Your task to perform on an android device: uninstall "Speedtest by Ookla" Image 0: 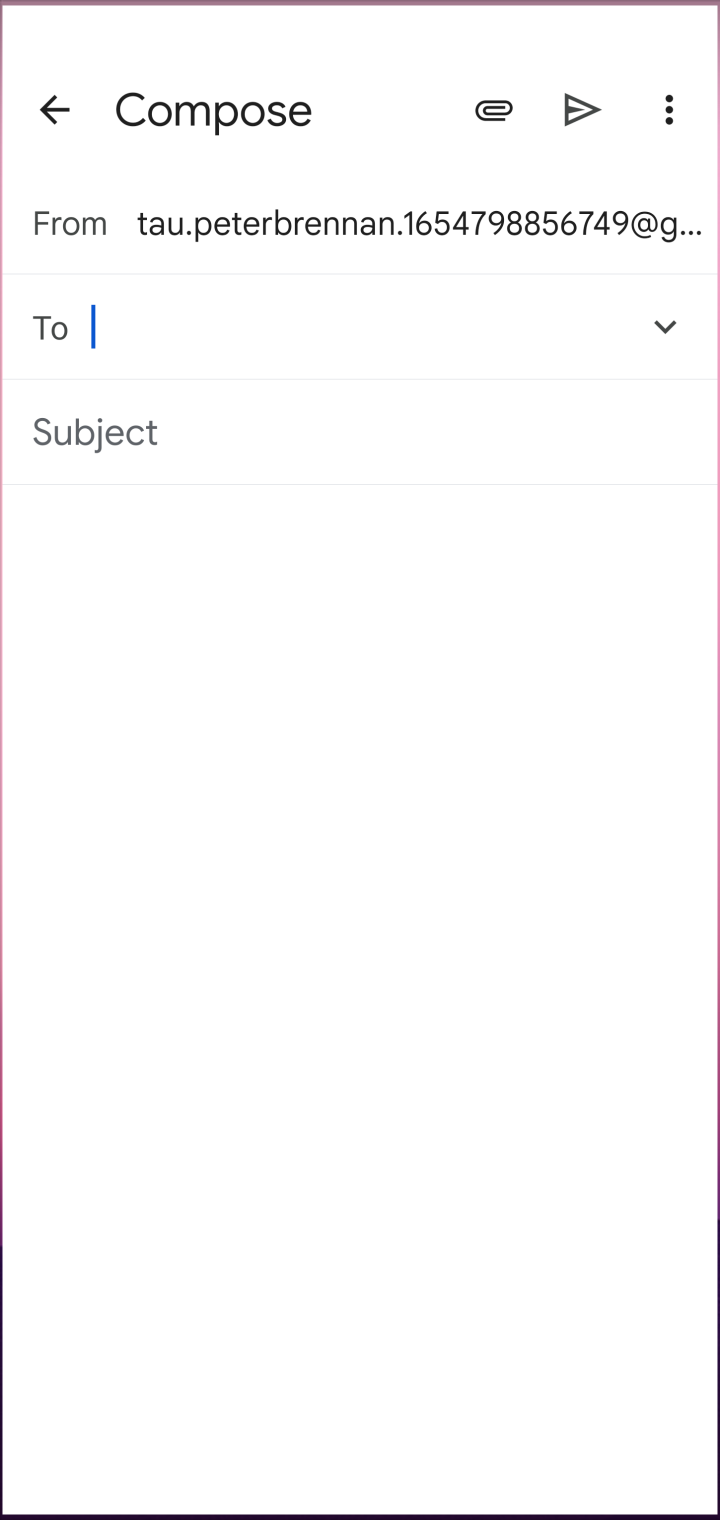
Step 0: press home button
Your task to perform on an android device: uninstall "Speedtest by Ookla" Image 1: 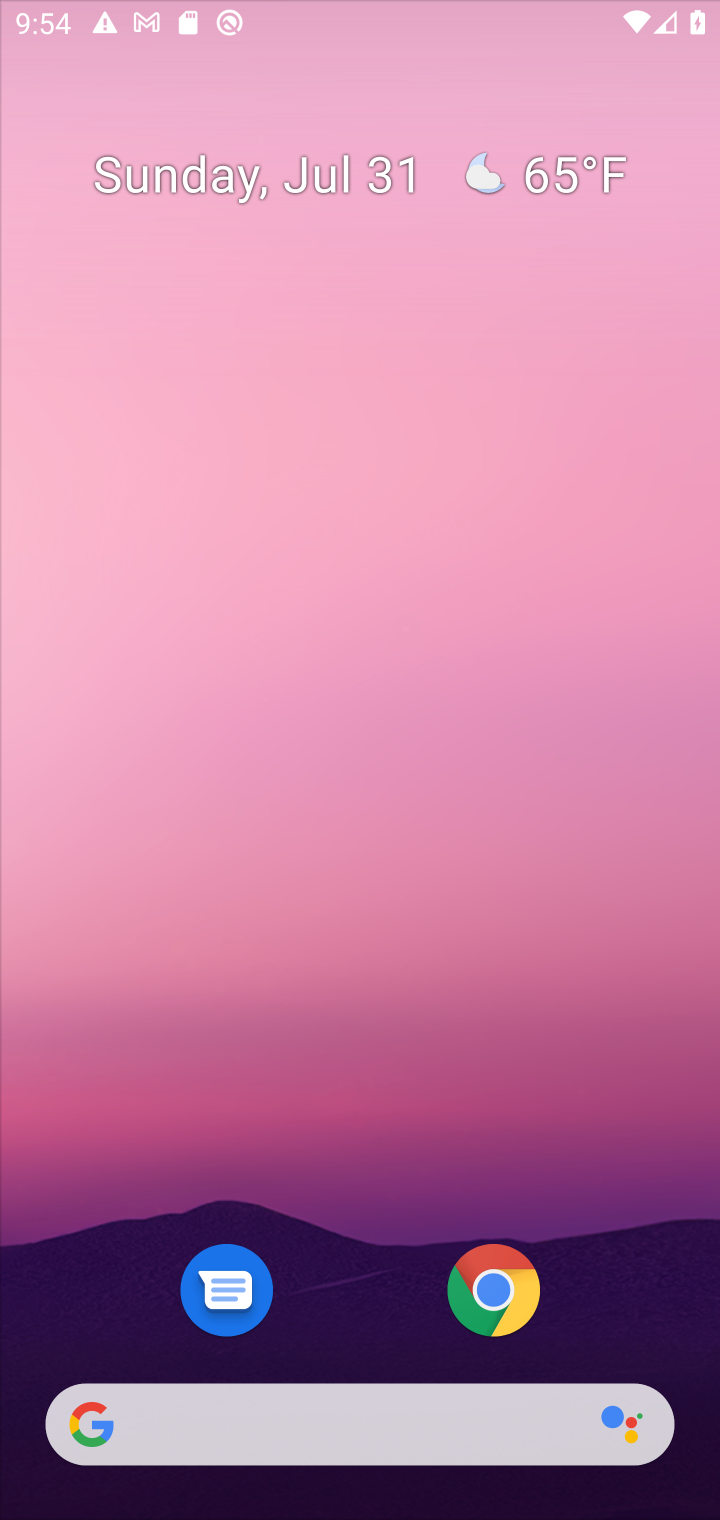
Step 1: press home button
Your task to perform on an android device: uninstall "Speedtest by Ookla" Image 2: 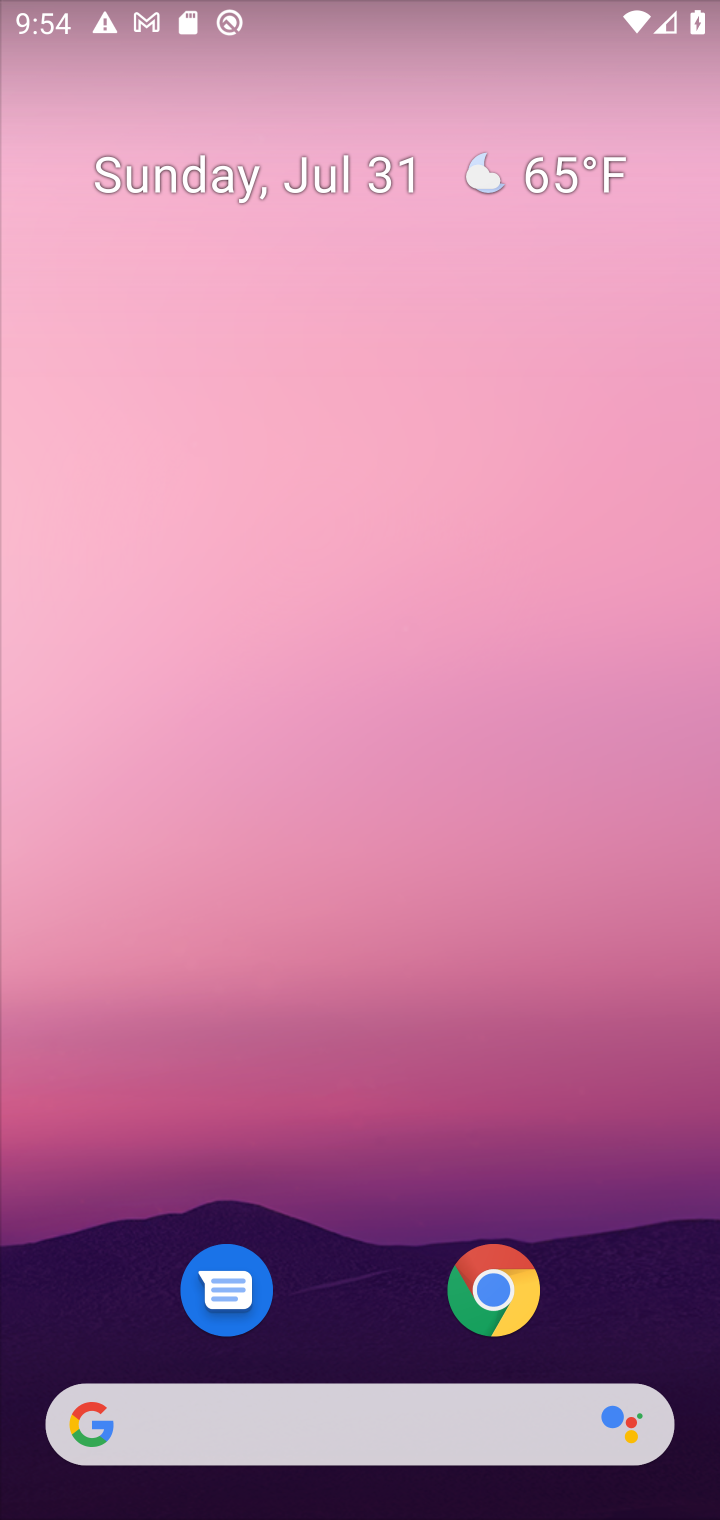
Step 2: drag from (610, 1218) to (479, 47)
Your task to perform on an android device: uninstall "Speedtest by Ookla" Image 3: 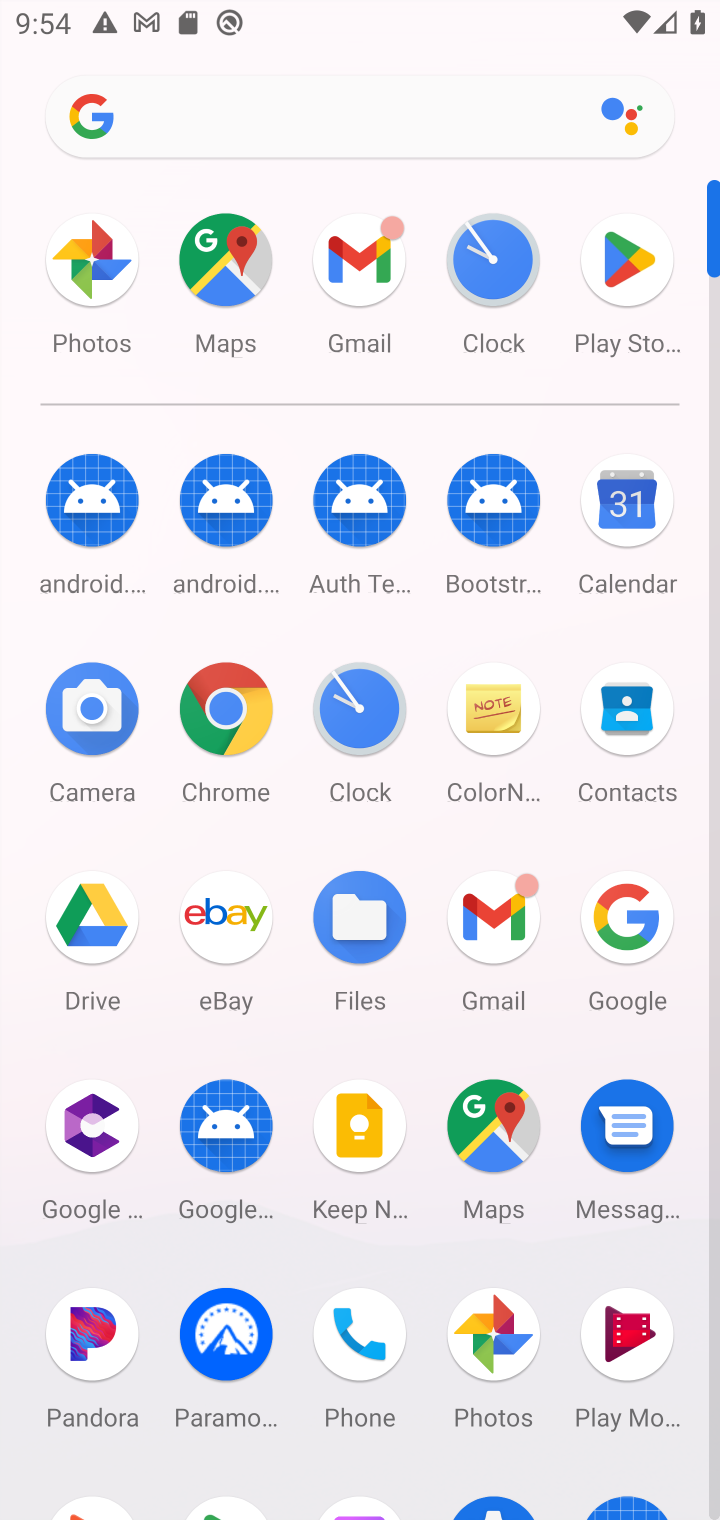
Step 3: click (621, 269)
Your task to perform on an android device: uninstall "Speedtest by Ookla" Image 4: 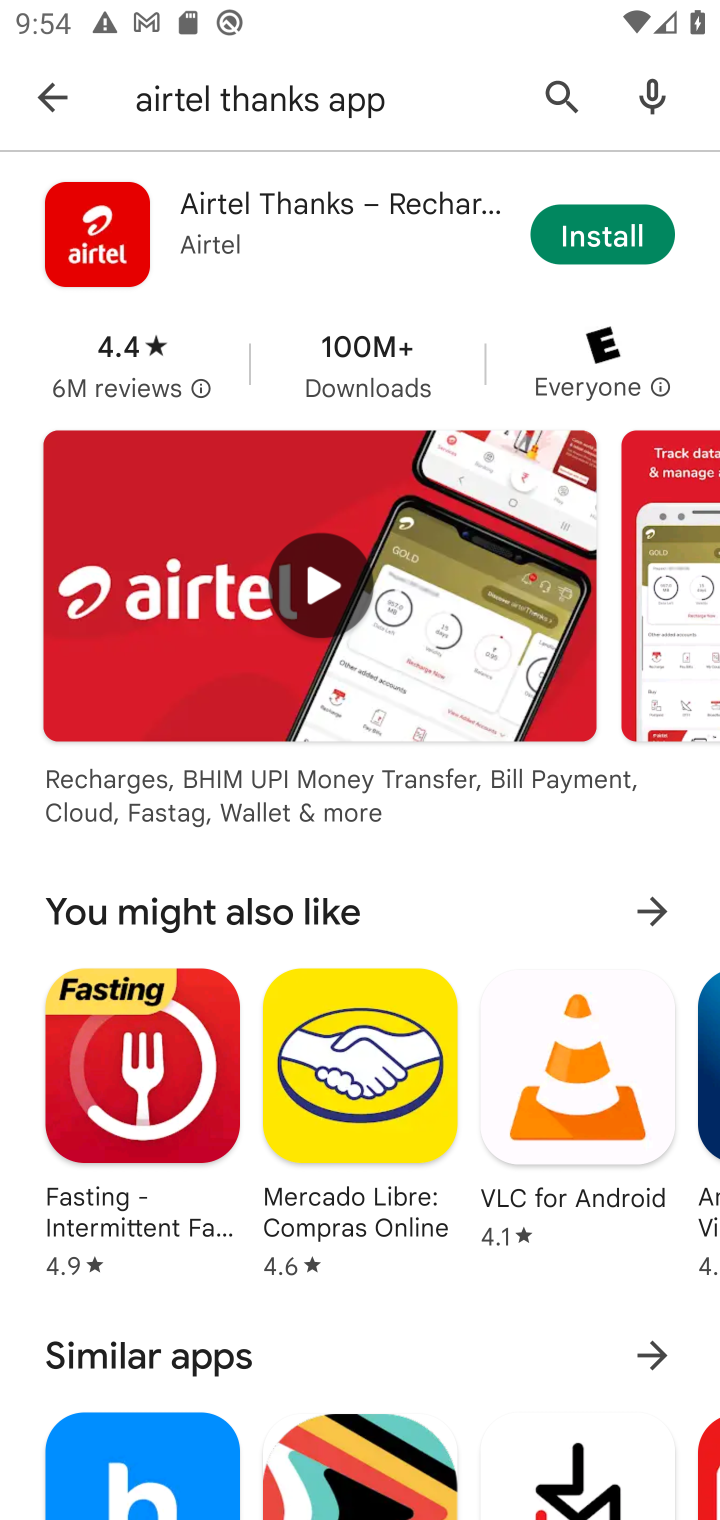
Step 4: click (565, 91)
Your task to perform on an android device: uninstall "Speedtest by Ookla" Image 5: 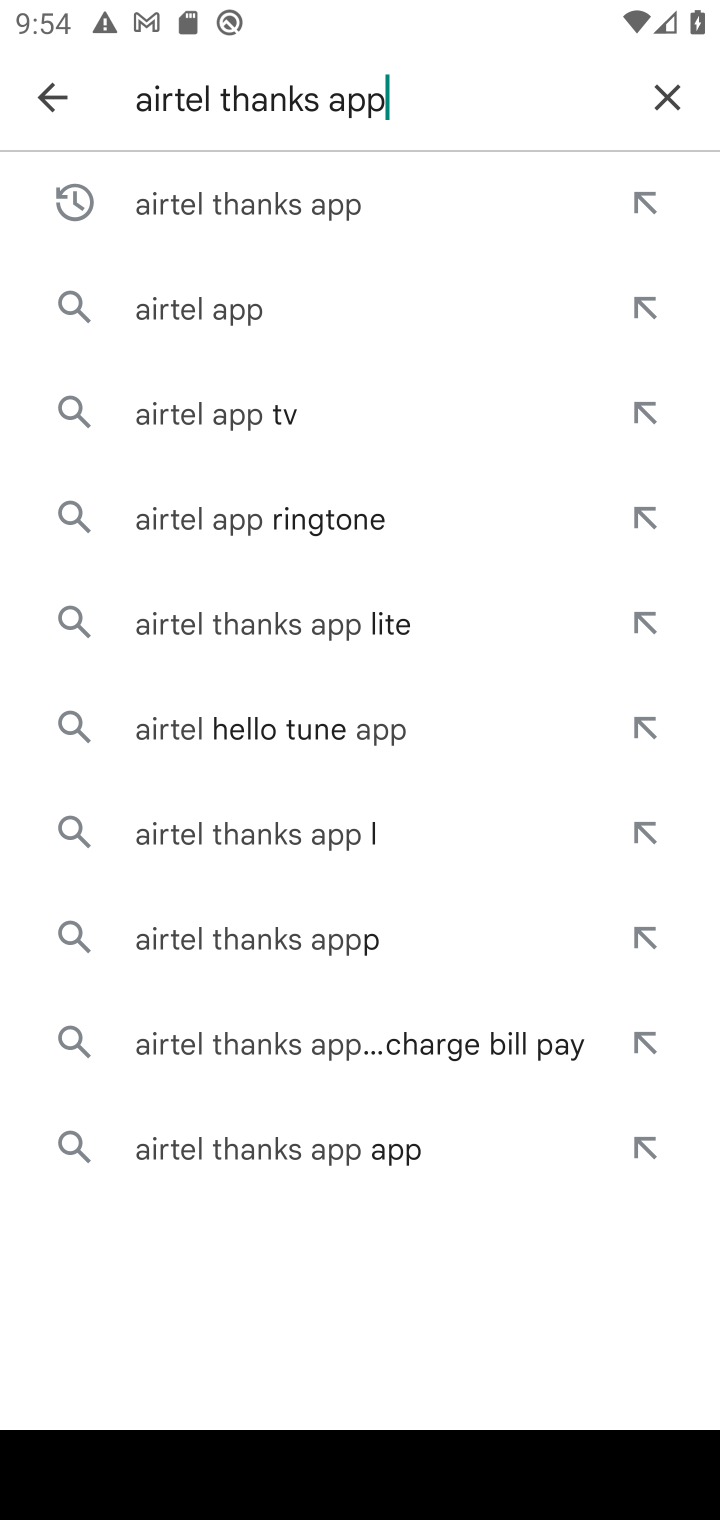
Step 5: click (657, 97)
Your task to perform on an android device: uninstall "Speedtest by Ookla" Image 6: 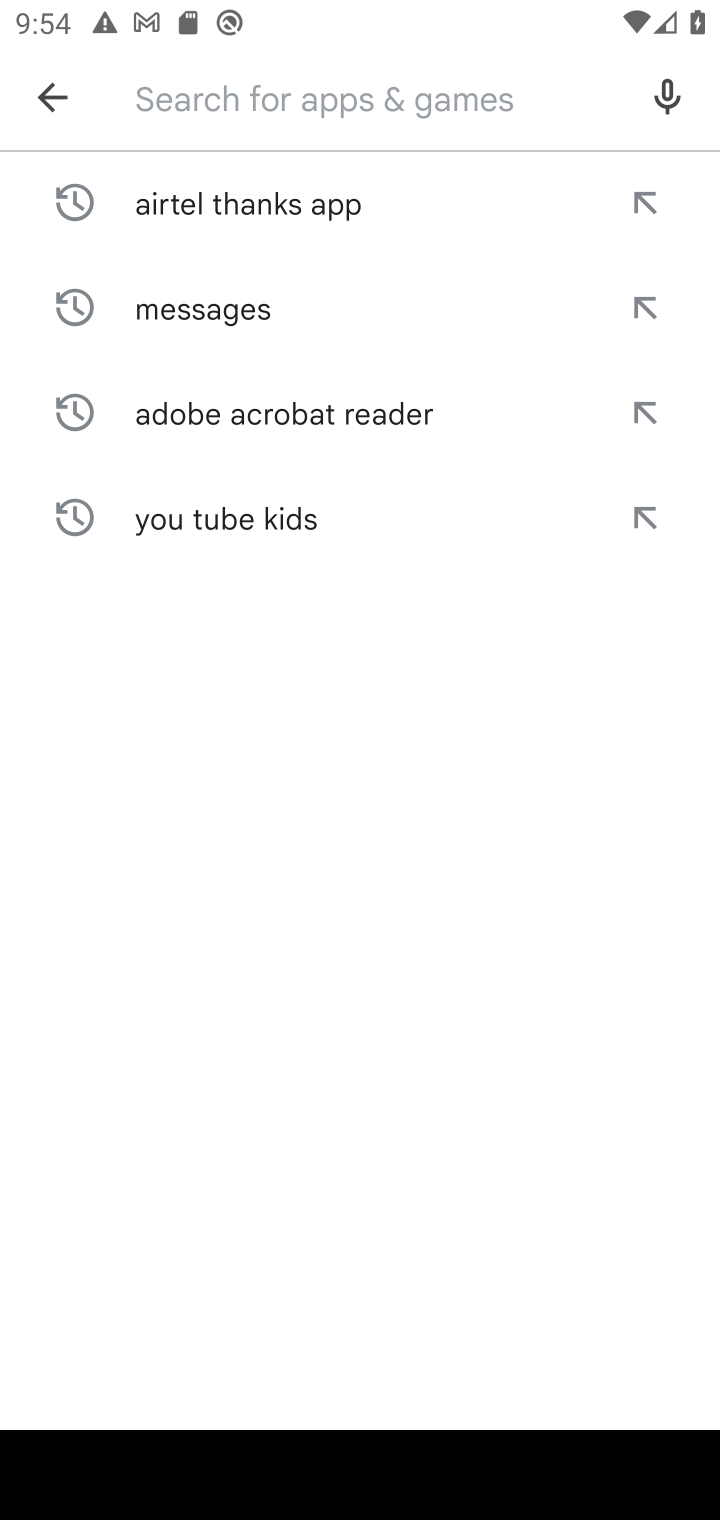
Step 6: click (368, 96)
Your task to perform on an android device: uninstall "Speedtest by Ookla" Image 7: 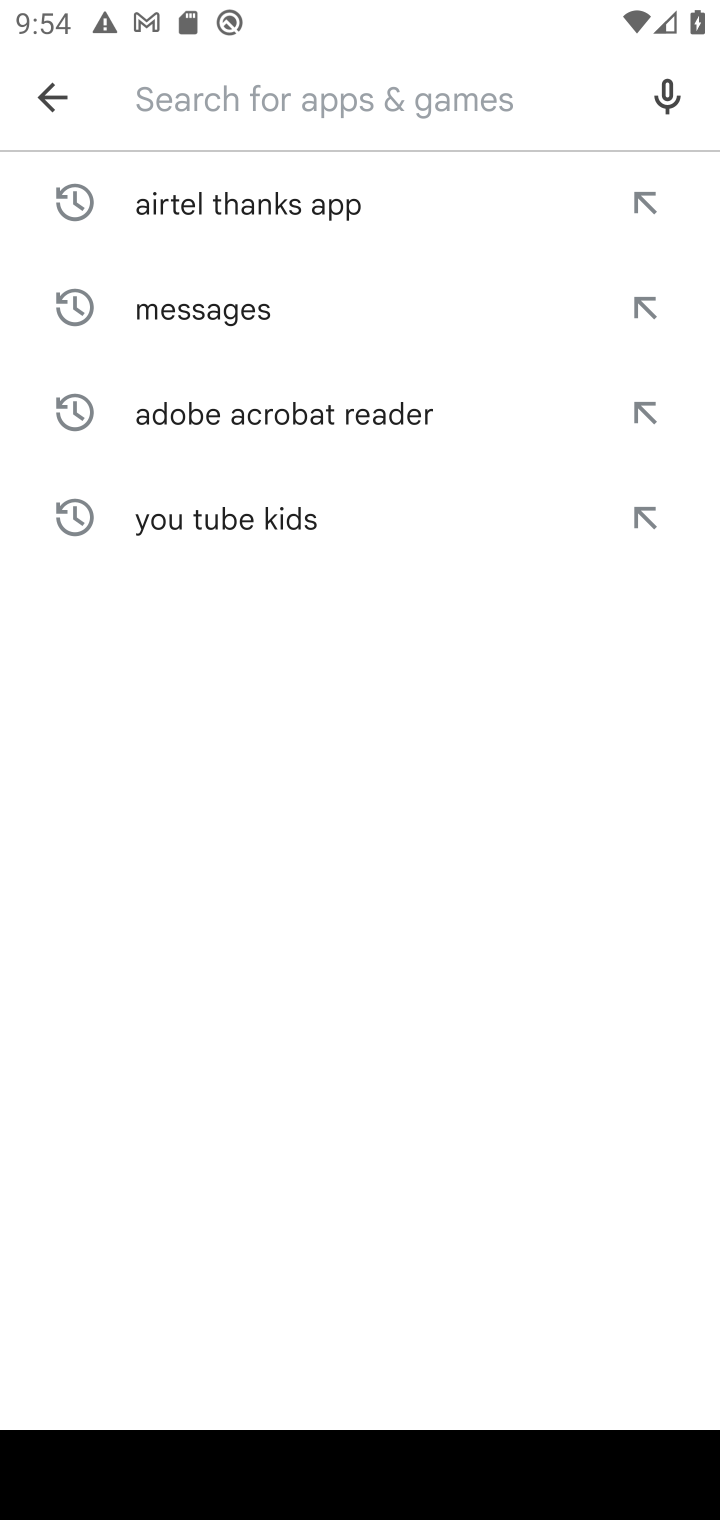
Step 7: type "Speedtest by Ookla"
Your task to perform on an android device: uninstall "Speedtest by Ookla" Image 8: 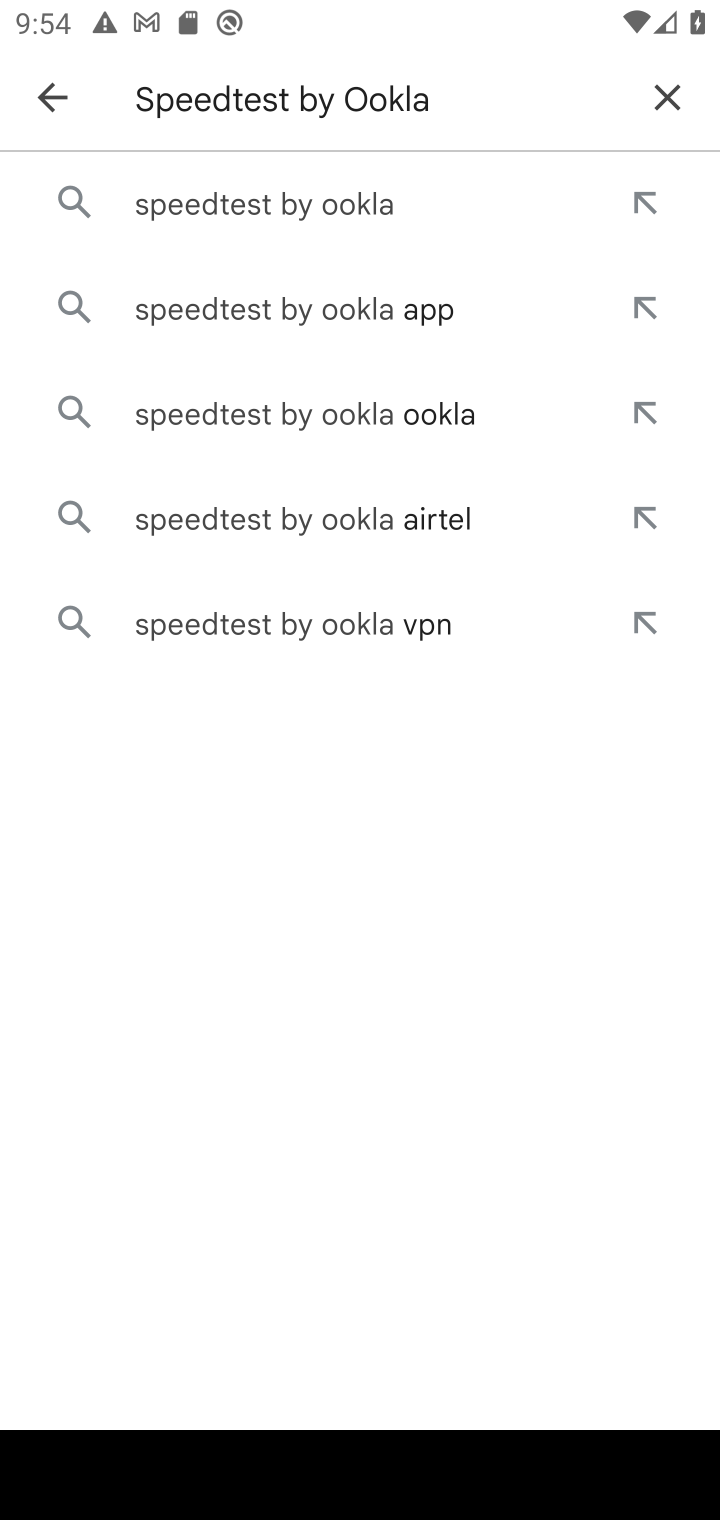
Step 8: click (297, 206)
Your task to perform on an android device: uninstall "Speedtest by Ookla" Image 9: 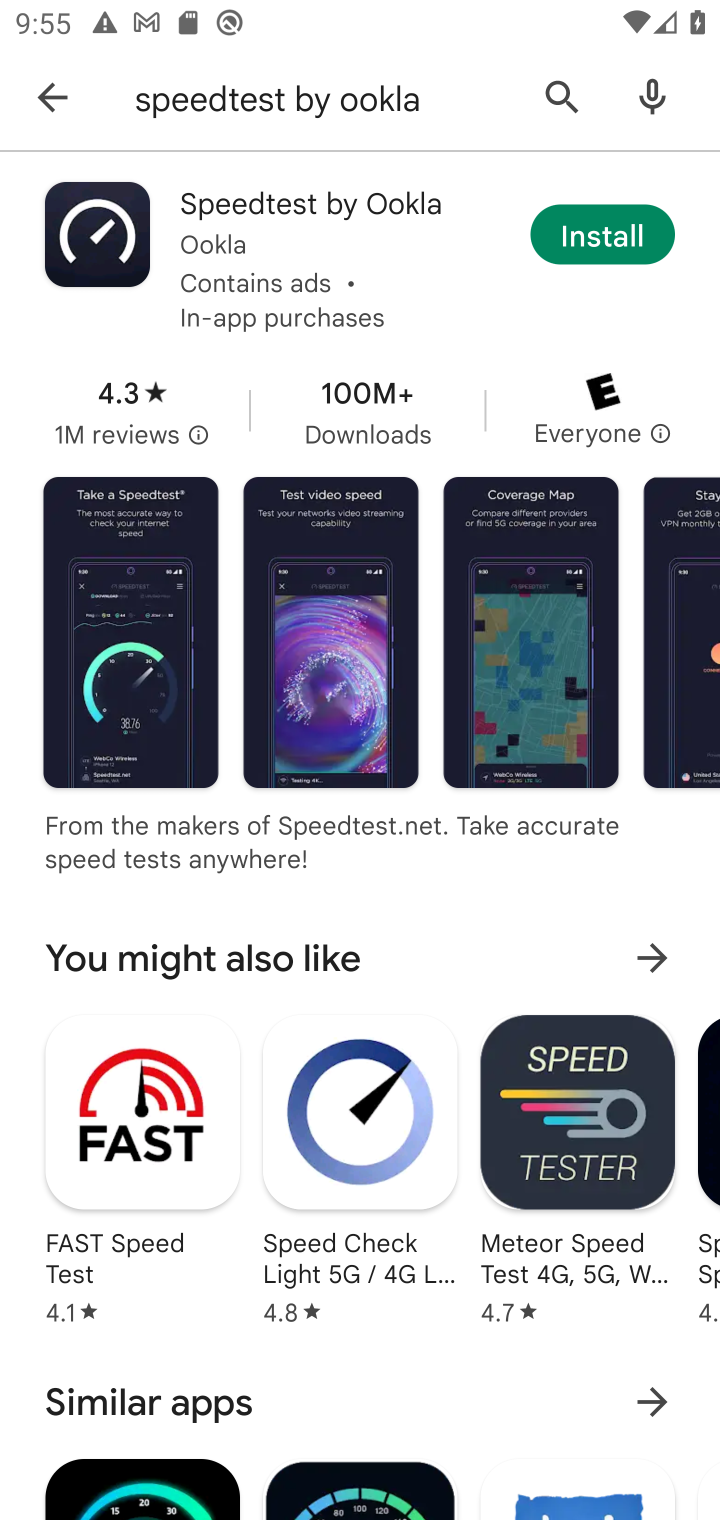
Step 9: task complete